Your task to perform on an android device: Open Reddit.com Image 0: 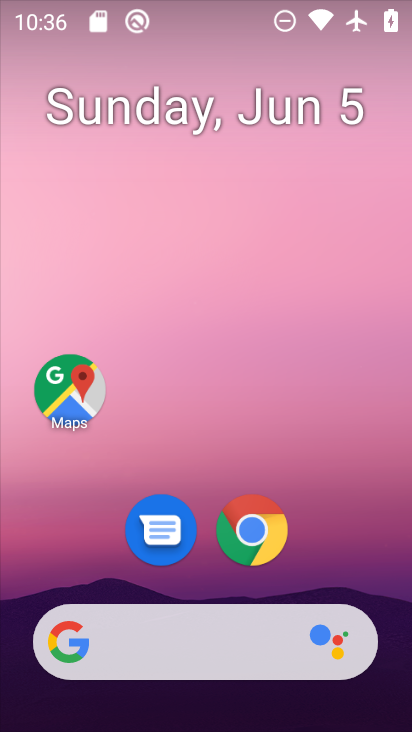
Step 0: click (255, 534)
Your task to perform on an android device: Open Reddit.com Image 1: 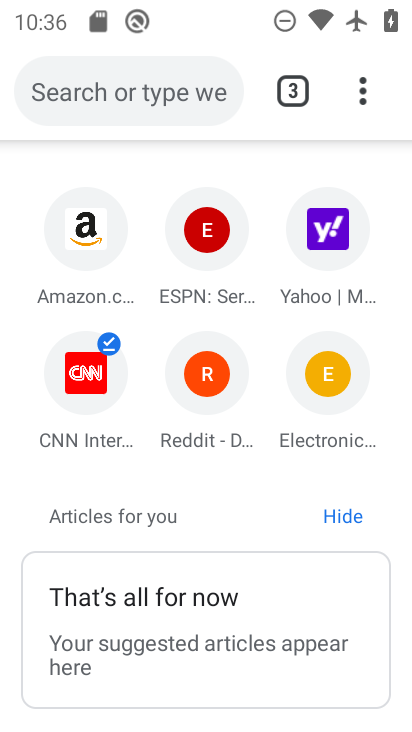
Step 1: click (134, 93)
Your task to perform on an android device: Open Reddit.com Image 2: 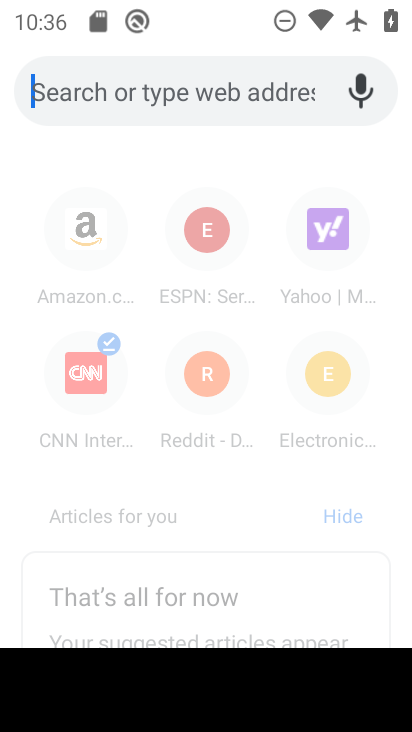
Step 2: type "reddit.com"
Your task to perform on an android device: Open Reddit.com Image 3: 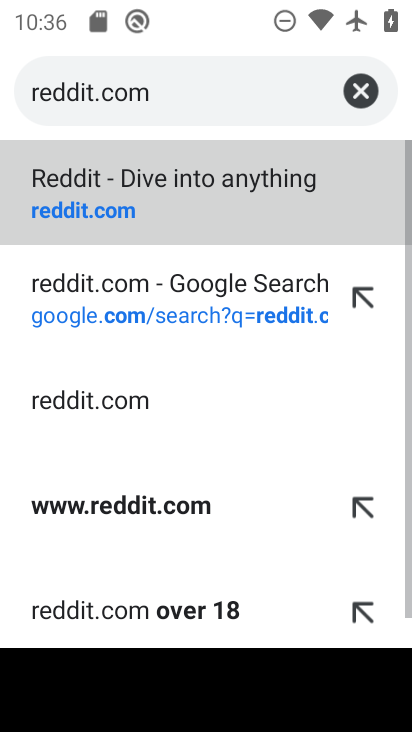
Step 3: click (122, 189)
Your task to perform on an android device: Open Reddit.com Image 4: 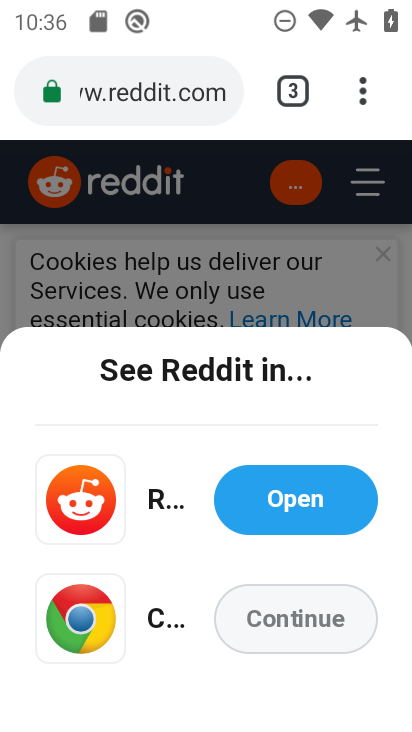
Step 4: task complete